Your task to perform on an android device: Go to Reddit.com Image 0: 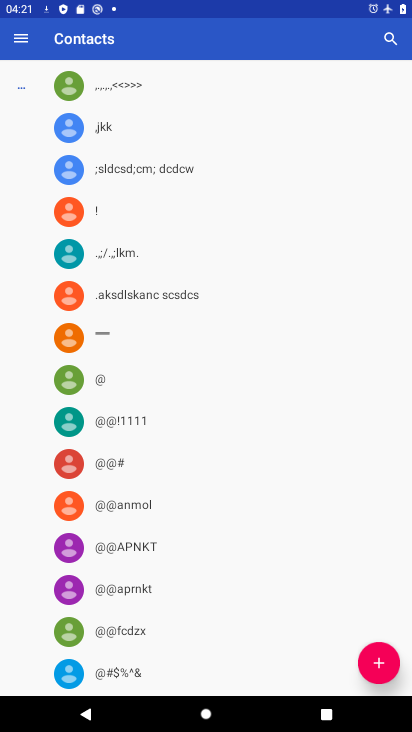
Step 0: press home button
Your task to perform on an android device: Go to Reddit.com Image 1: 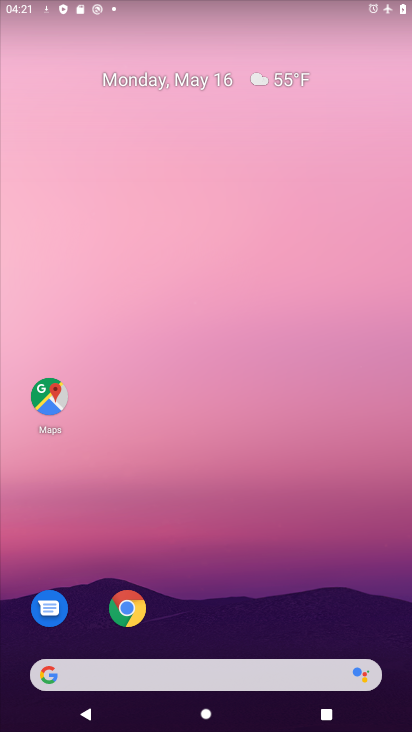
Step 1: click (135, 607)
Your task to perform on an android device: Go to Reddit.com Image 2: 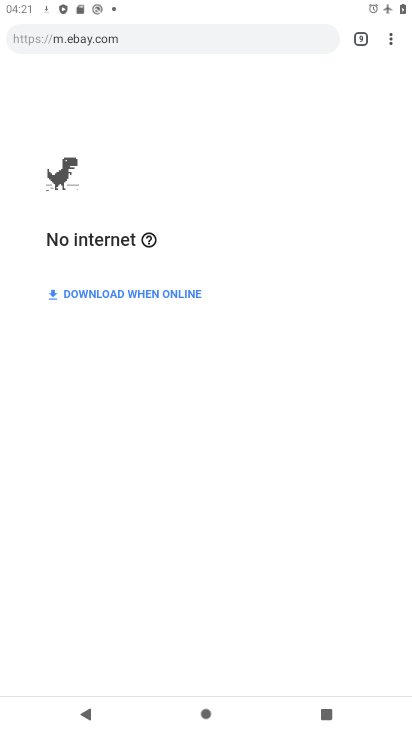
Step 2: click (359, 42)
Your task to perform on an android device: Go to Reddit.com Image 3: 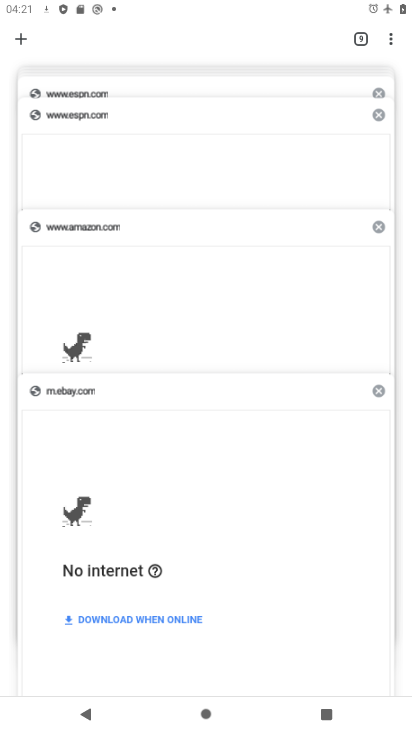
Step 3: click (25, 35)
Your task to perform on an android device: Go to Reddit.com Image 4: 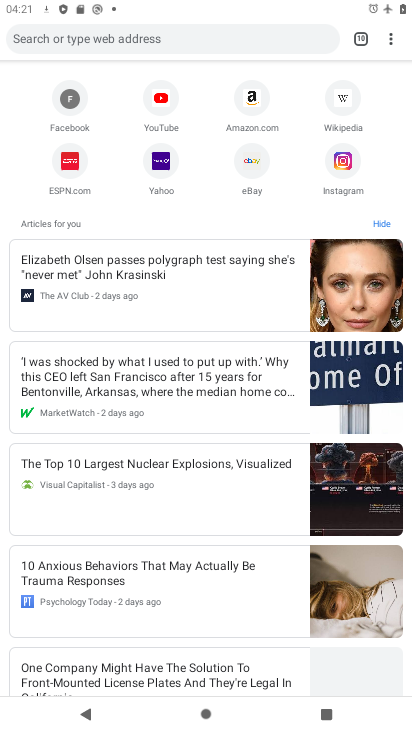
Step 4: click (165, 36)
Your task to perform on an android device: Go to Reddit.com Image 5: 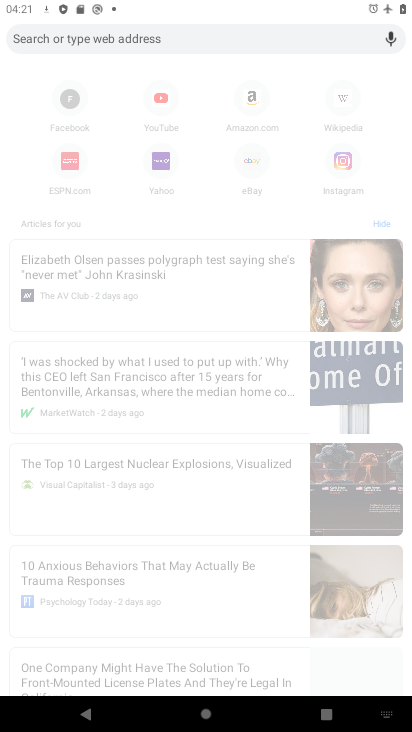
Step 5: type "Reddit.com"
Your task to perform on an android device: Go to Reddit.com Image 6: 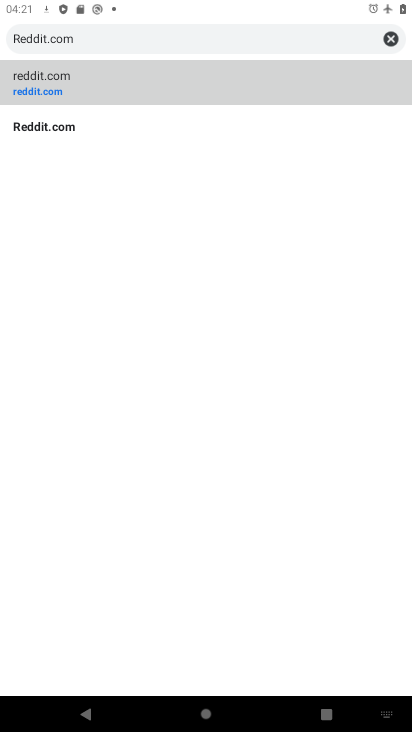
Step 6: click (70, 85)
Your task to perform on an android device: Go to Reddit.com Image 7: 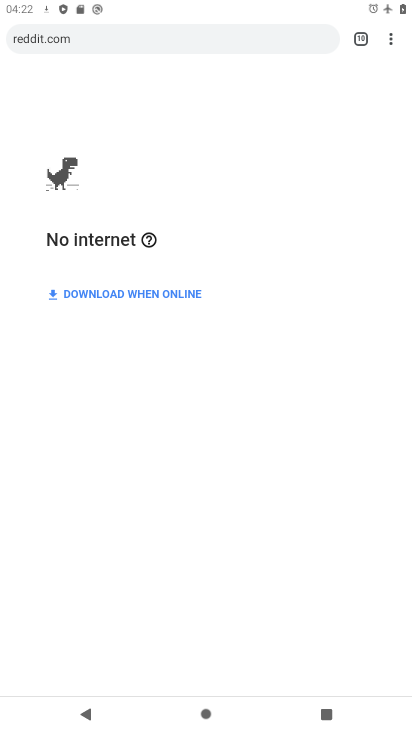
Step 7: task complete